Your task to perform on an android device: turn off smart reply in the gmail app Image 0: 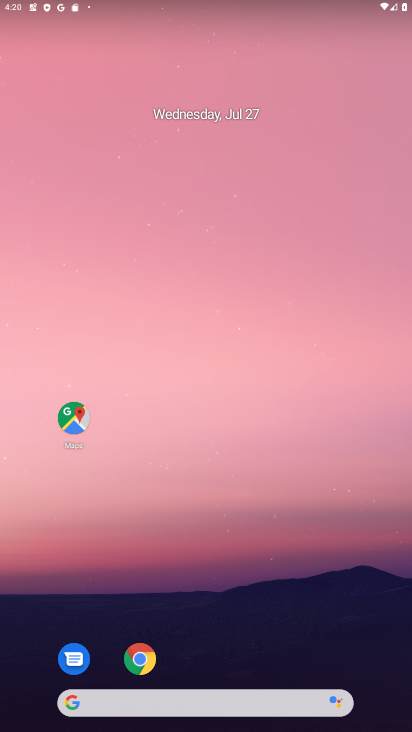
Step 0: drag from (283, 661) to (284, 29)
Your task to perform on an android device: turn off smart reply in the gmail app Image 1: 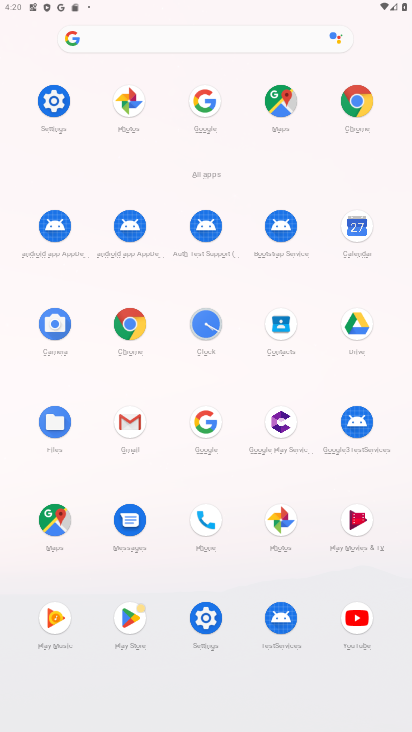
Step 1: click (127, 422)
Your task to perform on an android device: turn off smart reply in the gmail app Image 2: 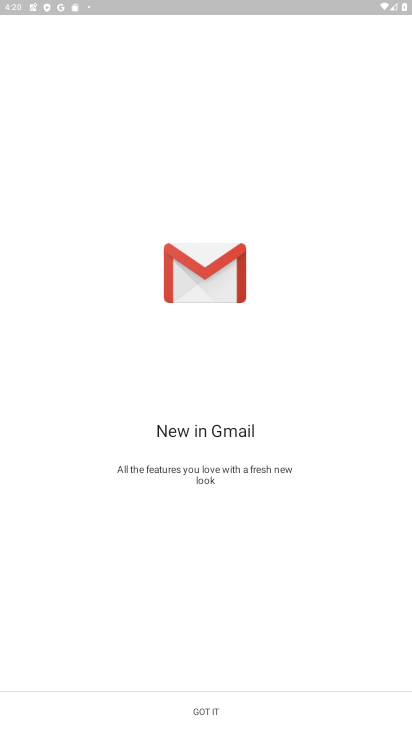
Step 2: click (198, 707)
Your task to perform on an android device: turn off smart reply in the gmail app Image 3: 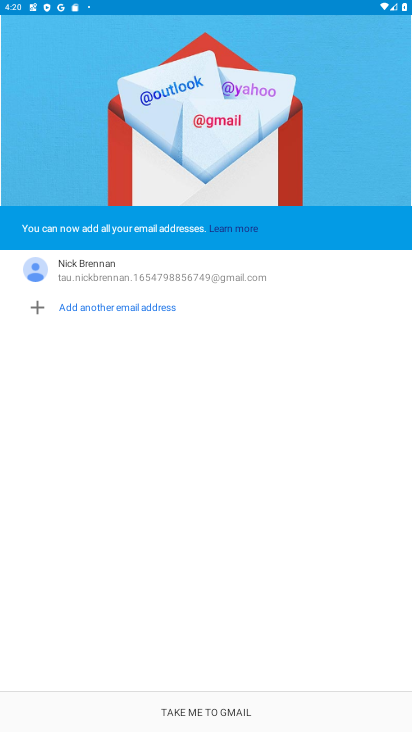
Step 3: click (198, 707)
Your task to perform on an android device: turn off smart reply in the gmail app Image 4: 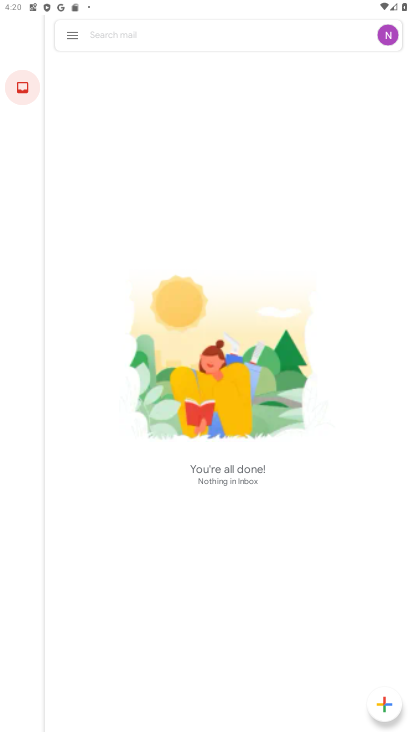
Step 4: click (63, 32)
Your task to perform on an android device: turn off smart reply in the gmail app Image 5: 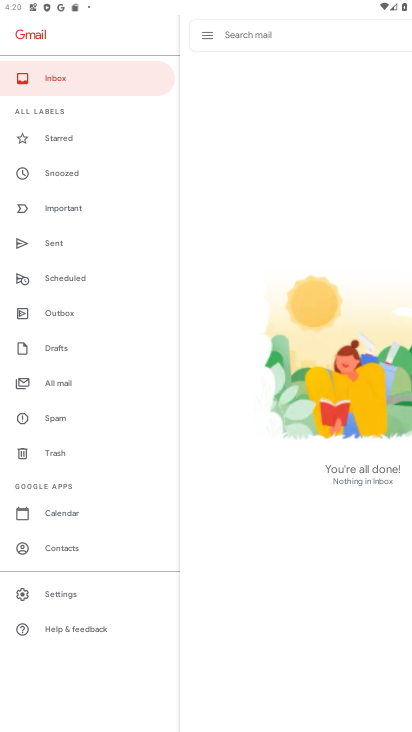
Step 5: click (90, 587)
Your task to perform on an android device: turn off smart reply in the gmail app Image 6: 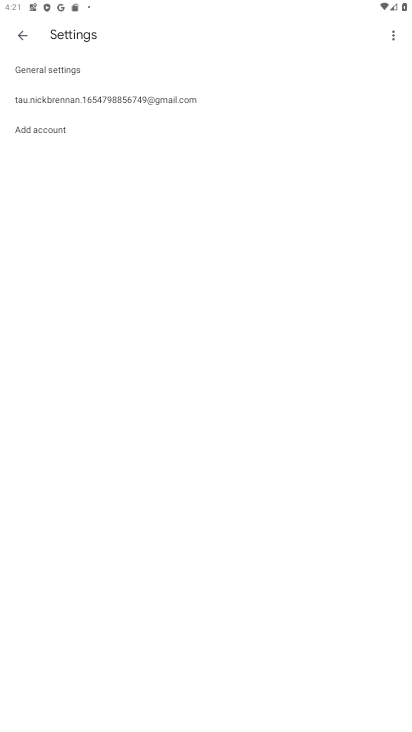
Step 6: click (158, 113)
Your task to perform on an android device: turn off smart reply in the gmail app Image 7: 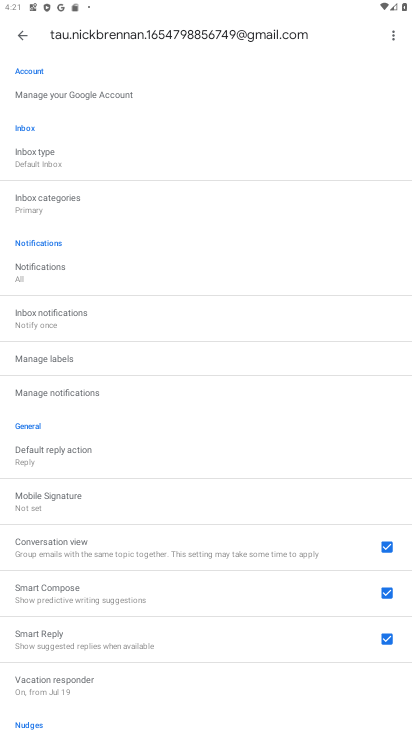
Step 7: click (377, 644)
Your task to perform on an android device: turn off smart reply in the gmail app Image 8: 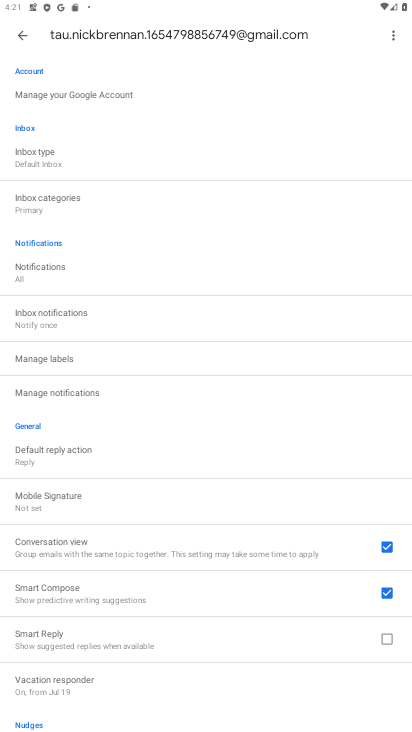
Step 8: task complete